Your task to perform on an android device: turn smart compose on in the gmail app Image 0: 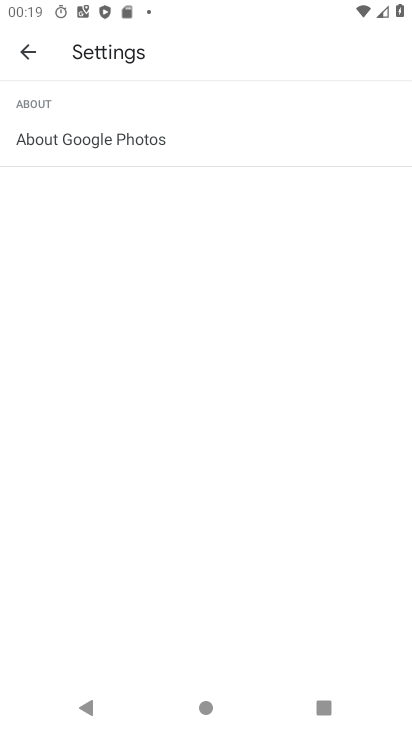
Step 0: press home button
Your task to perform on an android device: turn smart compose on in the gmail app Image 1: 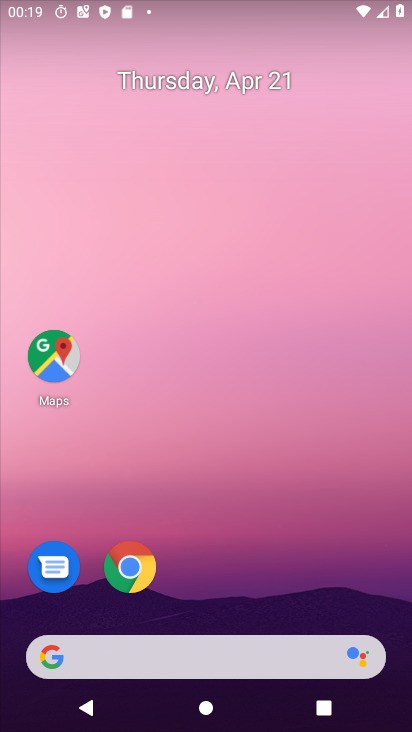
Step 1: drag from (300, 538) to (334, 199)
Your task to perform on an android device: turn smart compose on in the gmail app Image 2: 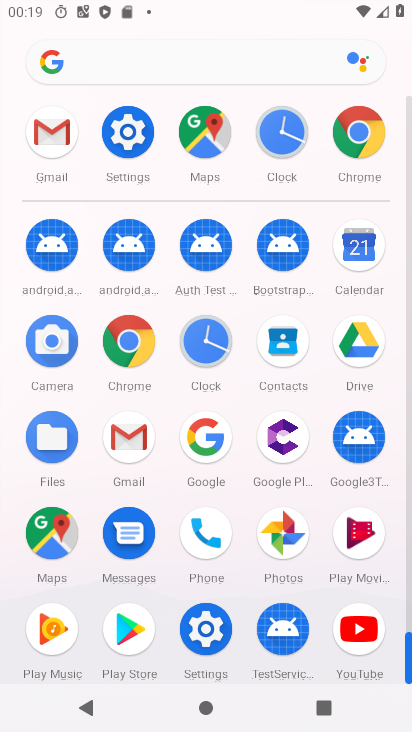
Step 2: click (131, 331)
Your task to perform on an android device: turn smart compose on in the gmail app Image 3: 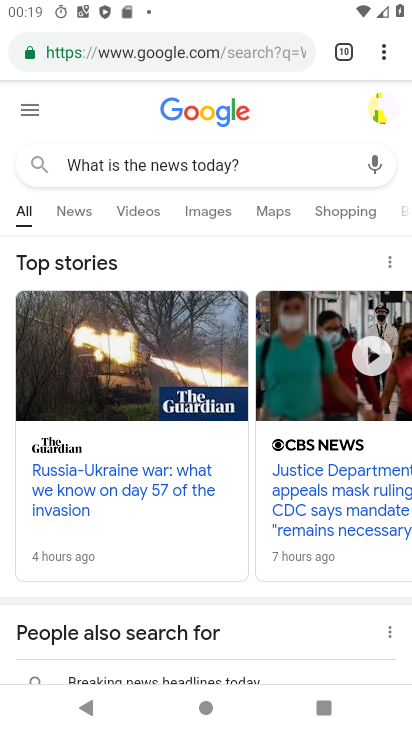
Step 3: press home button
Your task to perform on an android device: turn smart compose on in the gmail app Image 4: 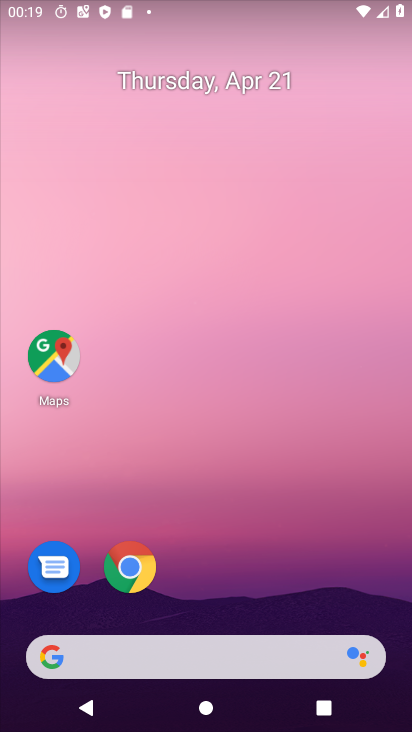
Step 4: drag from (205, 464) to (245, 254)
Your task to perform on an android device: turn smart compose on in the gmail app Image 5: 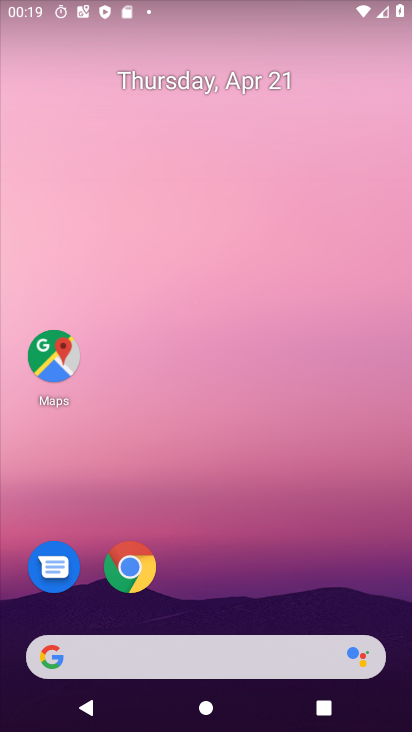
Step 5: drag from (228, 600) to (228, 267)
Your task to perform on an android device: turn smart compose on in the gmail app Image 6: 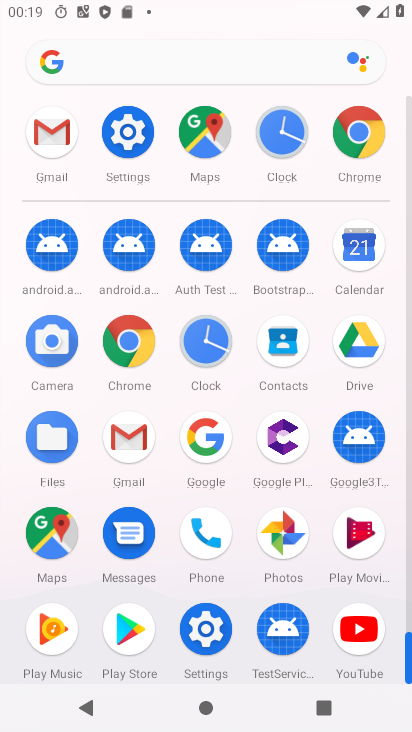
Step 6: click (131, 427)
Your task to perform on an android device: turn smart compose on in the gmail app Image 7: 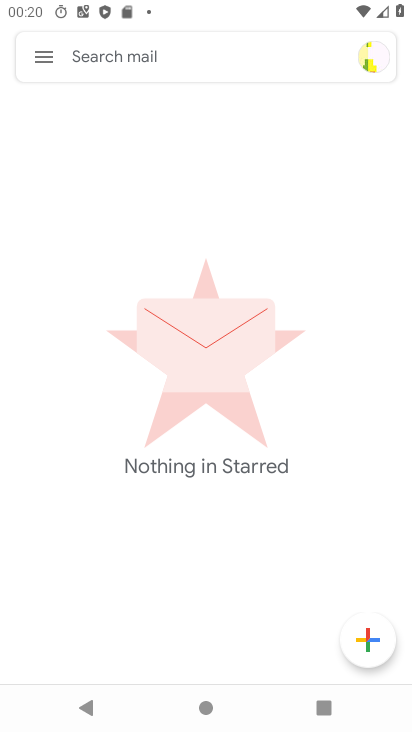
Step 7: click (42, 62)
Your task to perform on an android device: turn smart compose on in the gmail app Image 8: 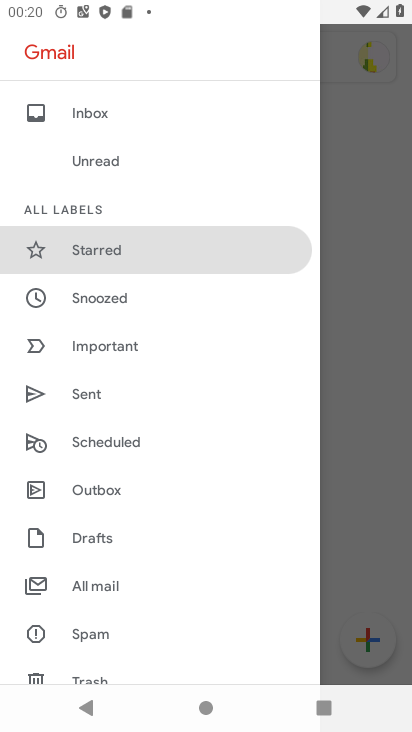
Step 8: drag from (141, 597) to (177, 300)
Your task to perform on an android device: turn smart compose on in the gmail app Image 9: 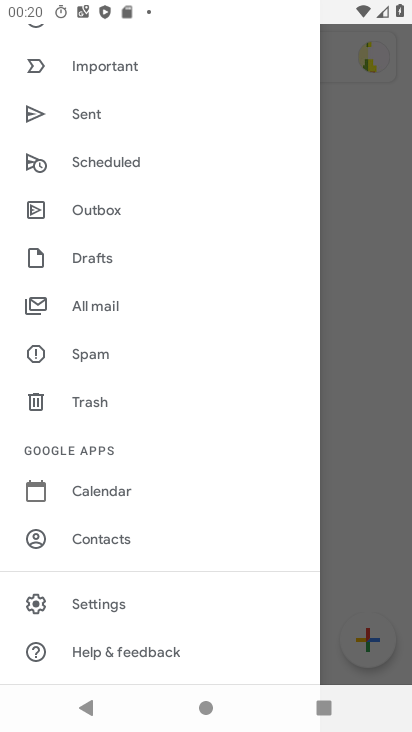
Step 9: click (110, 599)
Your task to perform on an android device: turn smart compose on in the gmail app Image 10: 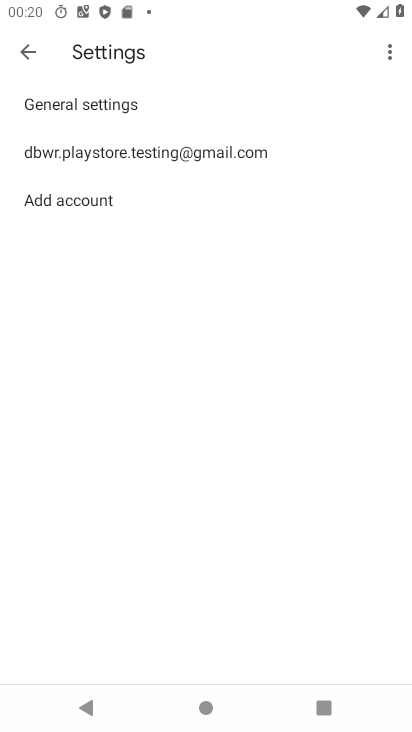
Step 10: click (186, 147)
Your task to perform on an android device: turn smart compose on in the gmail app Image 11: 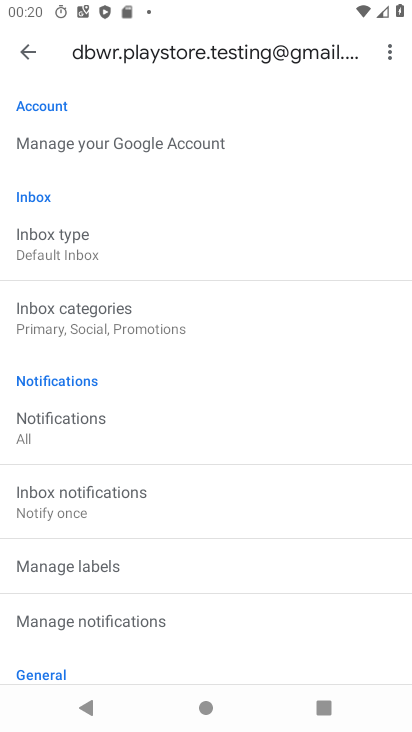
Step 11: task complete